Your task to perform on an android device: turn smart compose on in the gmail app Image 0: 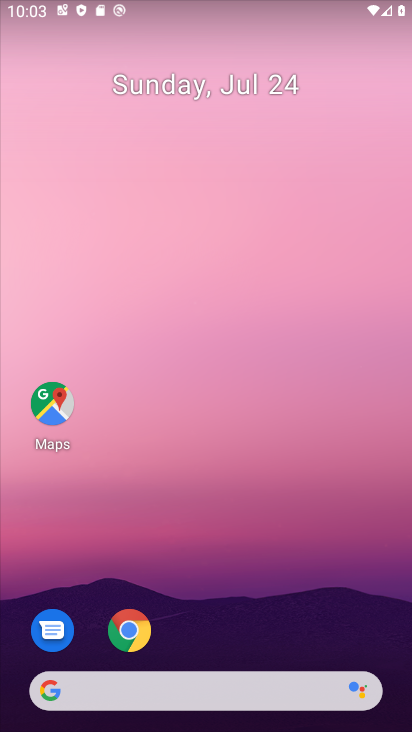
Step 0: drag from (201, 647) to (214, 32)
Your task to perform on an android device: turn smart compose on in the gmail app Image 1: 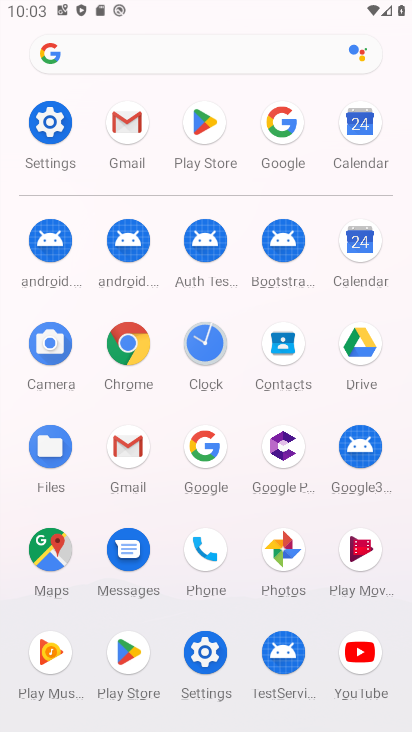
Step 1: click (130, 141)
Your task to perform on an android device: turn smart compose on in the gmail app Image 2: 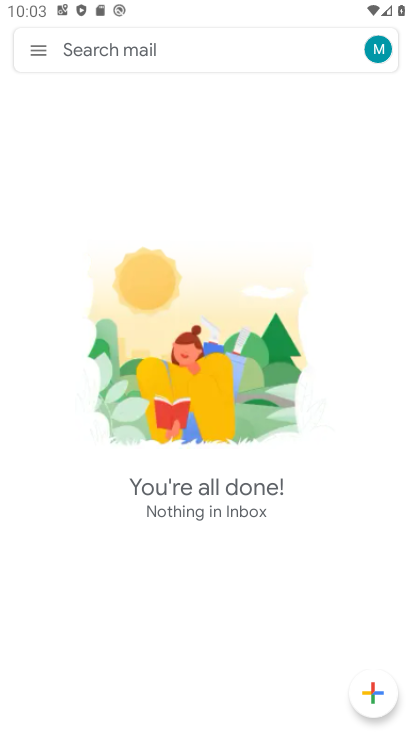
Step 2: click (42, 54)
Your task to perform on an android device: turn smart compose on in the gmail app Image 3: 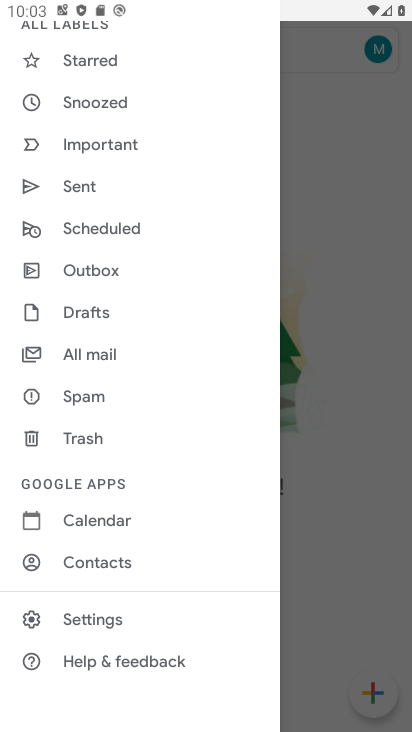
Step 3: click (130, 621)
Your task to perform on an android device: turn smart compose on in the gmail app Image 4: 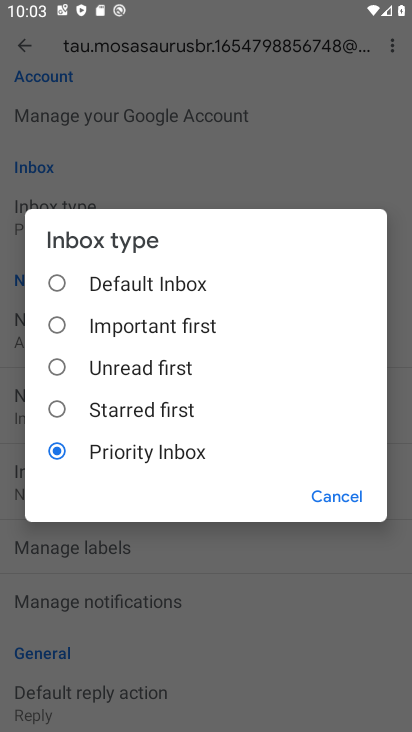
Step 4: click (326, 506)
Your task to perform on an android device: turn smart compose on in the gmail app Image 5: 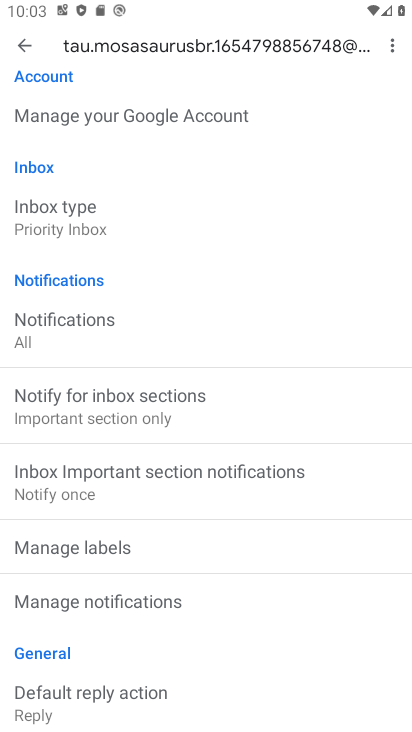
Step 5: task complete